Your task to perform on an android device: Open Chrome and go to settings Image 0: 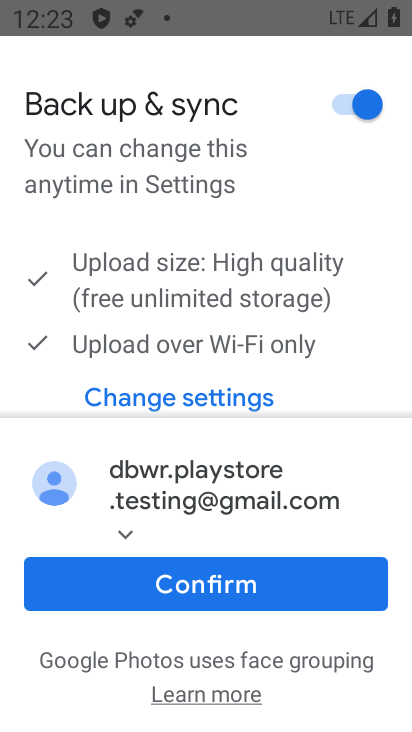
Step 0: press home button
Your task to perform on an android device: Open Chrome and go to settings Image 1: 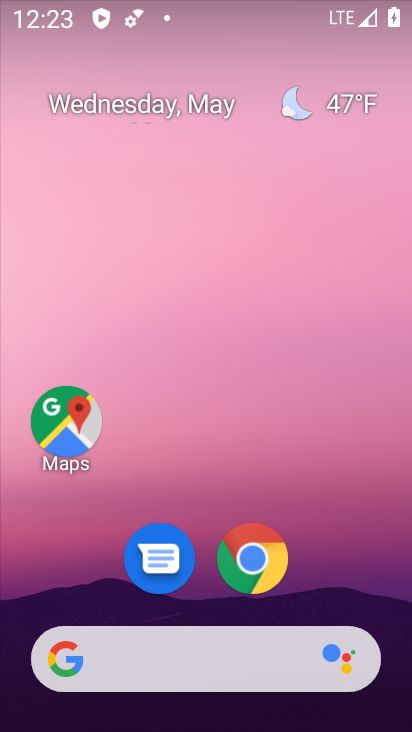
Step 1: click (256, 561)
Your task to perform on an android device: Open Chrome and go to settings Image 2: 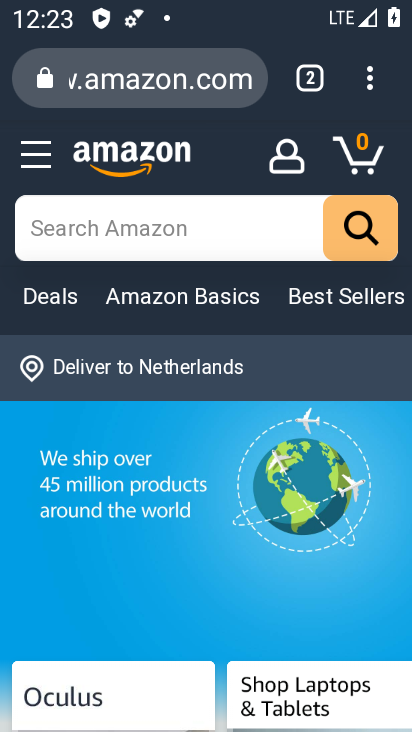
Step 2: click (371, 87)
Your task to perform on an android device: Open Chrome and go to settings Image 3: 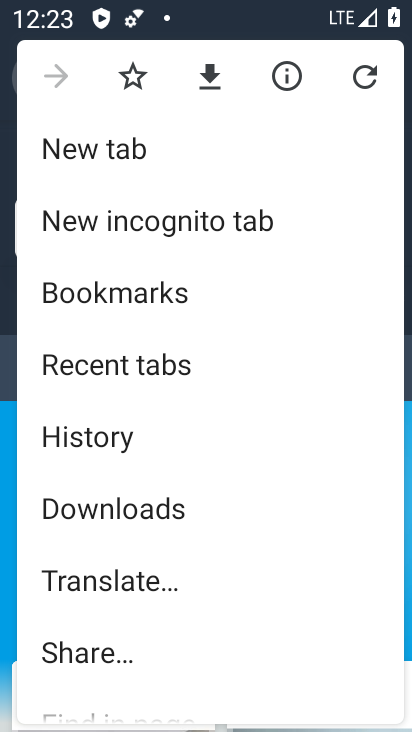
Step 3: drag from (105, 621) to (99, 218)
Your task to perform on an android device: Open Chrome and go to settings Image 4: 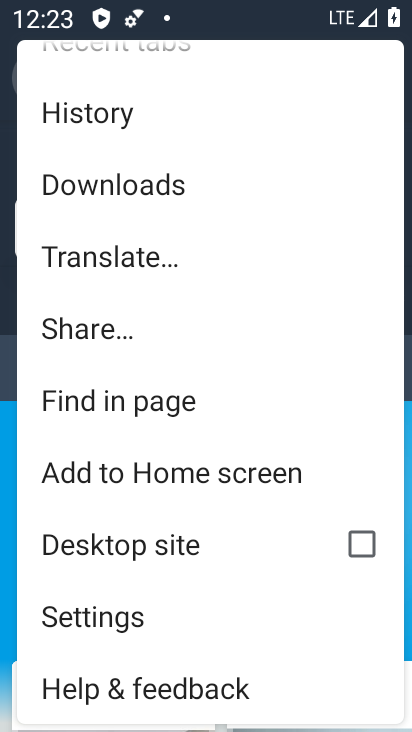
Step 4: click (122, 612)
Your task to perform on an android device: Open Chrome and go to settings Image 5: 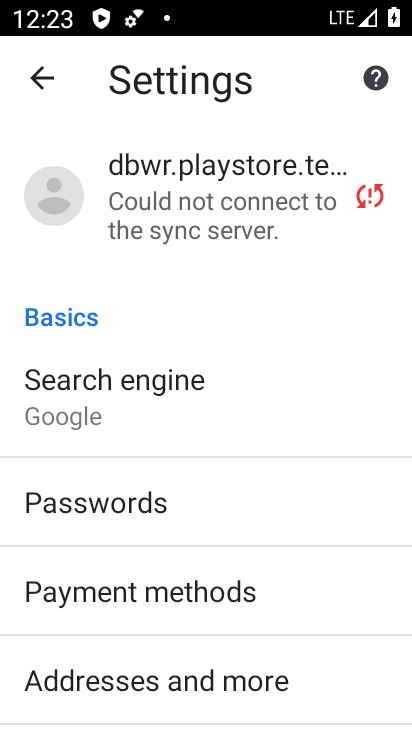
Step 5: task complete